Your task to perform on an android device: empty trash in the gmail app Image 0: 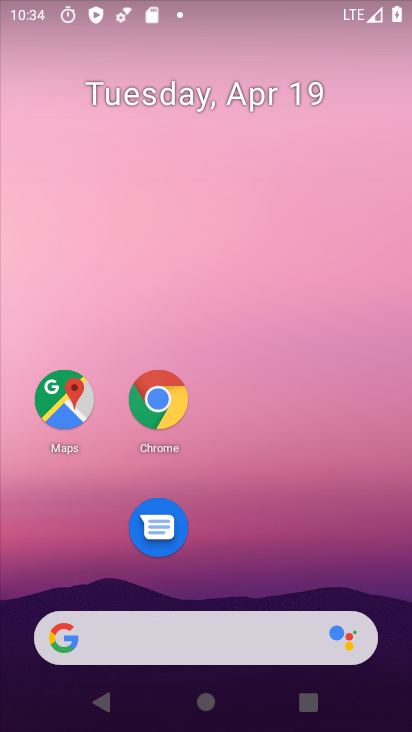
Step 0: drag from (268, 644) to (321, 237)
Your task to perform on an android device: empty trash in the gmail app Image 1: 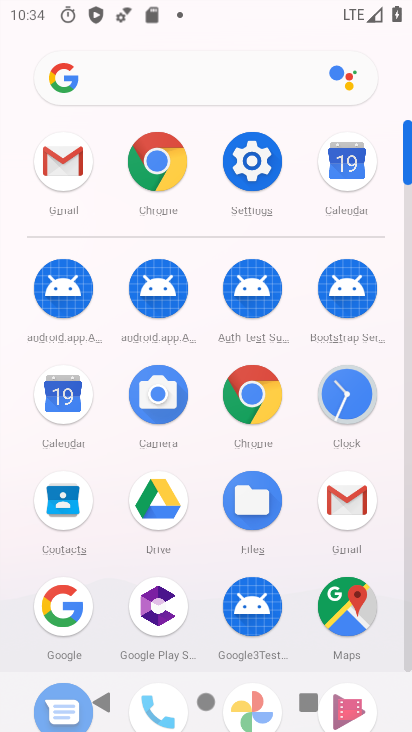
Step 1: click (336, 490)
Your task to perform on an android device: empty trash in the gmail app Image 2: 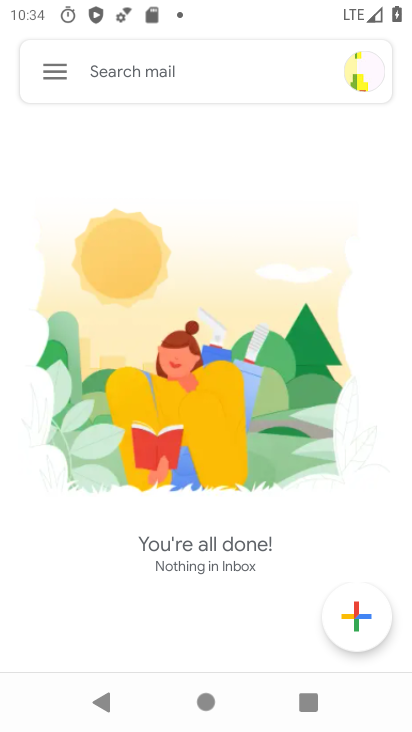
Step 2: click (60, 71)
Your task to perform on an android device: empty trash in the gmail app Image 3: 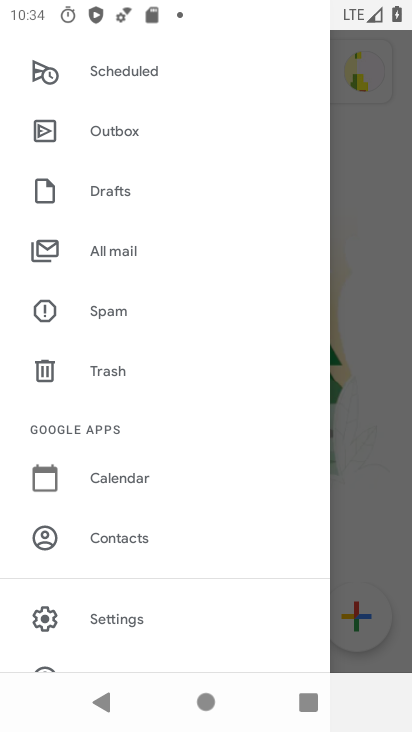
Step 3: click (134, 384)
Your task to perform on an android device: empty trash in the gmail app Image 4: 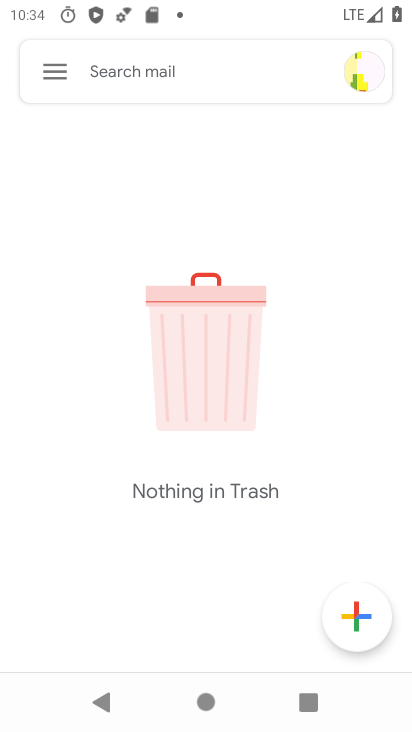
Step 4: task complete